Your task to perform on an android device: change the upload size in google photos Image 0: 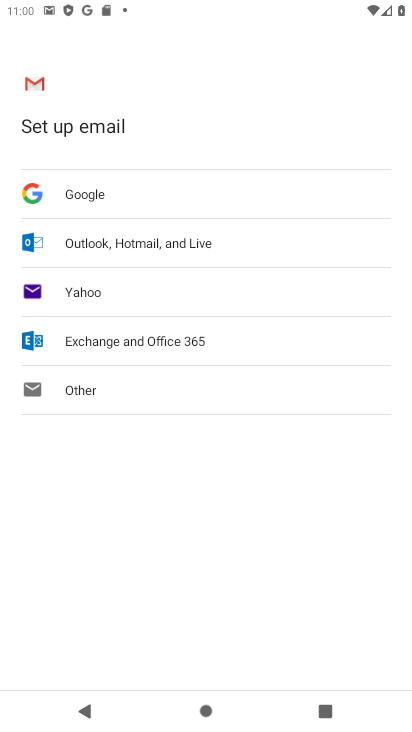
Step 0: drag from (195, 633) to (223, 327)
Your task to perform on an android device: change the upload size in google photos Image 1: 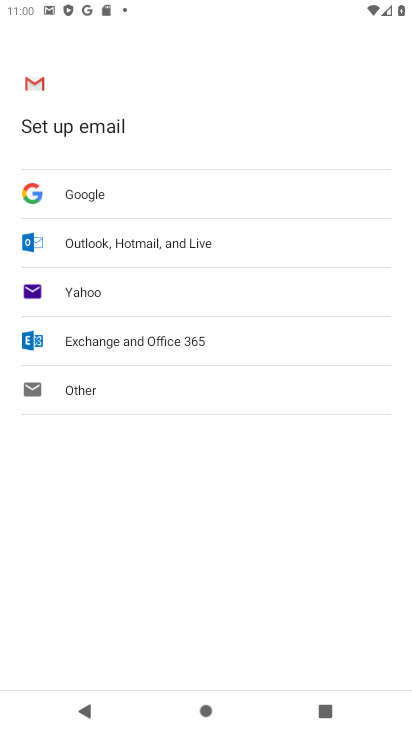
Step 1: press home button
Your task to perform on an android device: change the upload size in google photos Image 2: 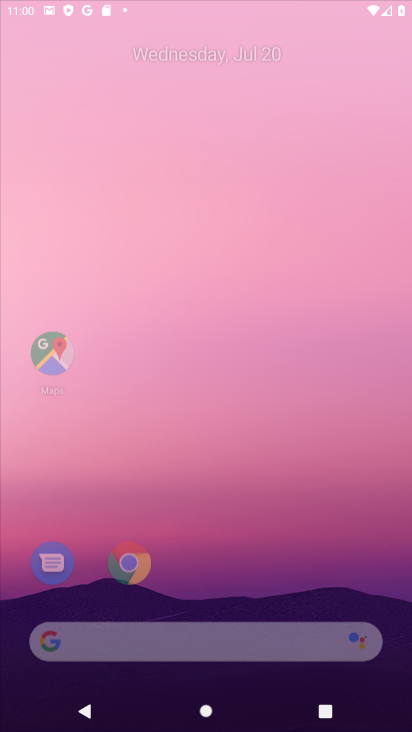
Step 2: drag from (173, 634) to (232, 106)
Your task to perform on an android device: change the upload size in google photos Image 3: 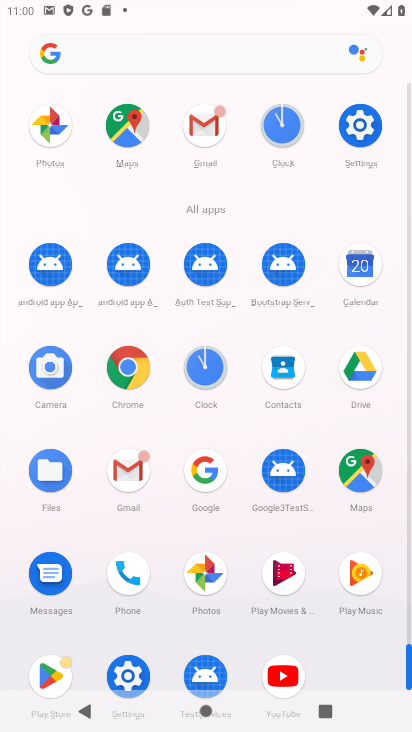
Step 3: click (216, 564)
Your task to perform on an android device: change the upload size in google photos Image 4: 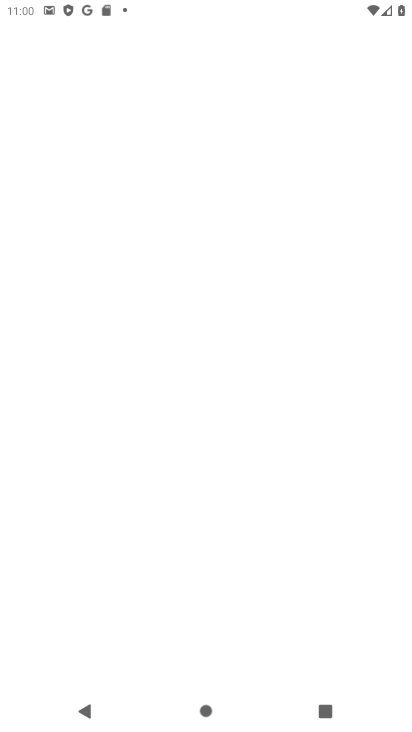
Step 4: drag from (293, 625) to (249, 211)
Your task to perform on an android device: change the upload size in google photos Image 5: 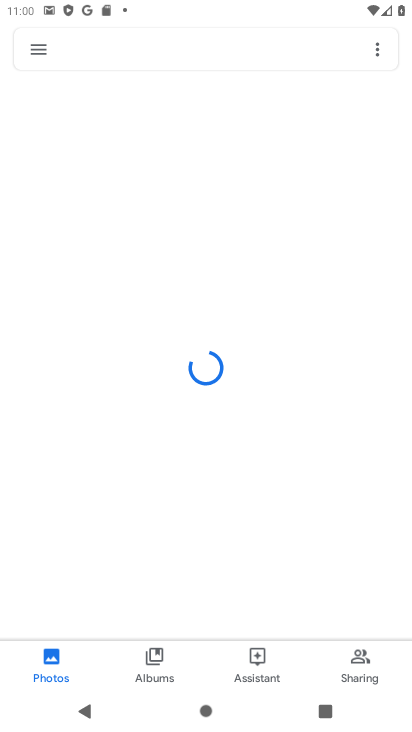
Step 5: drag from (198, 552) to (231, 215)
Your task to perform on an android device: change the upload size in google photos Image 6: 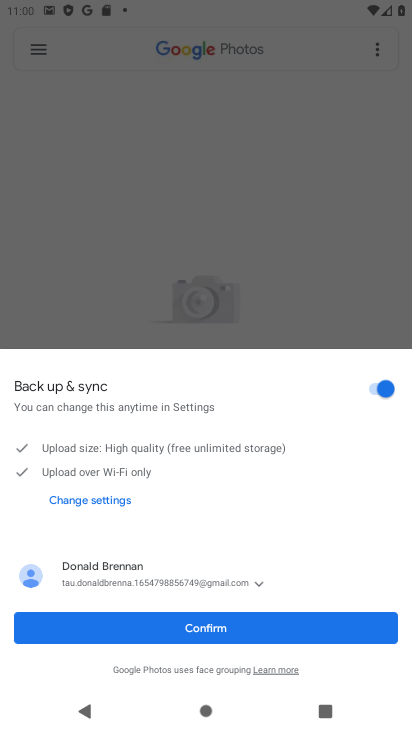
Step 6: press home button
Your task to perform on an android device: change the upload size in google photos Image 7: 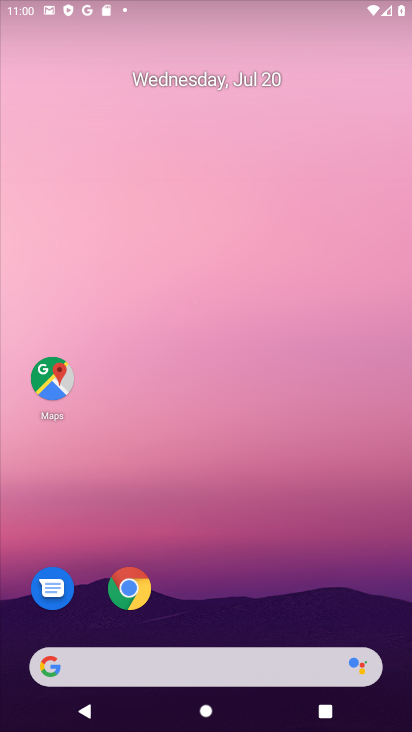
Step 7: drag from (216, 579) to (212, 130)
Your task to perform on an android device: change the upload size in google photos Image 8: 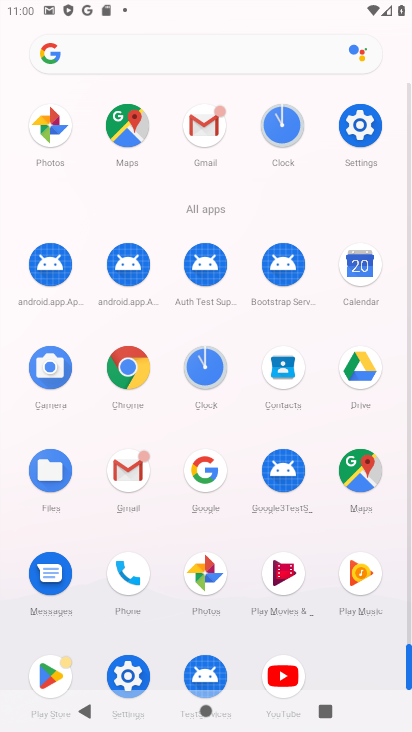
Step 8: click (198, 571)
Your task to perform on an android device: change the upload size in google photos Image 9: 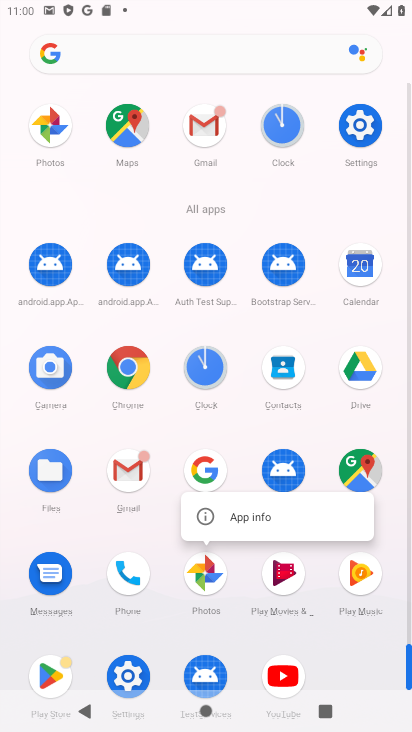
Step 9: click (252, 515)
Your task to perform on an android device: change the upload size in google photos Image 10: 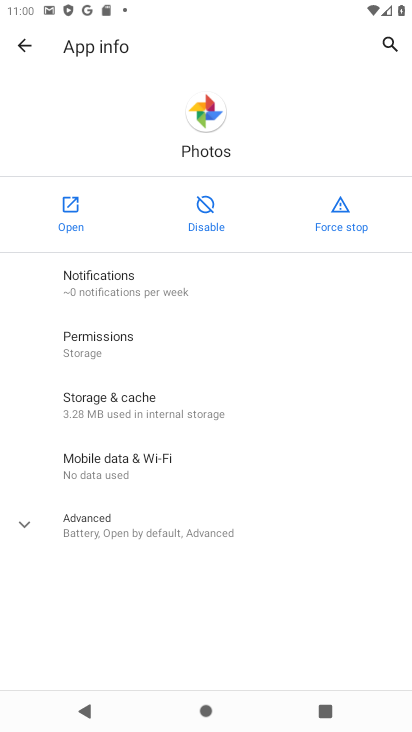
Step 10: click (62, 226)
Your task to perform on an android device: change the upload size in google photos Image 11: 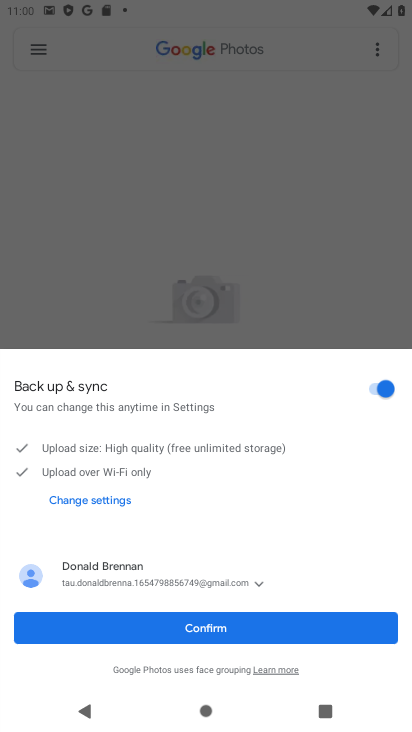
Step 11: drag from (237, 552) to (271, 283)
Your task to perform on an android device: change the upload size in google photos Image 12: 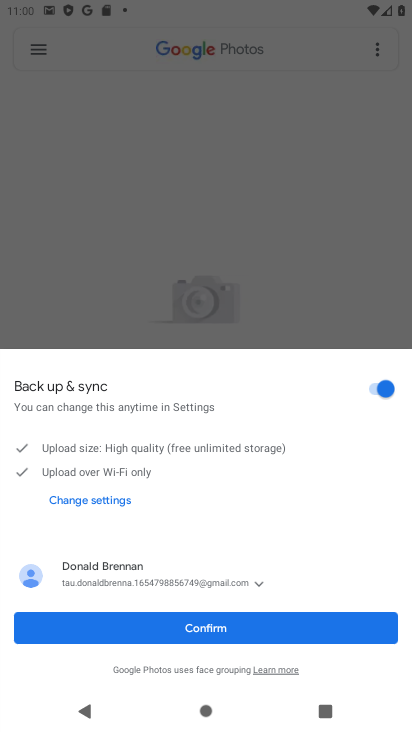
Step 12: click (256, 584)
Your task to perform on an android device: change the upload size in google photos Image 13: 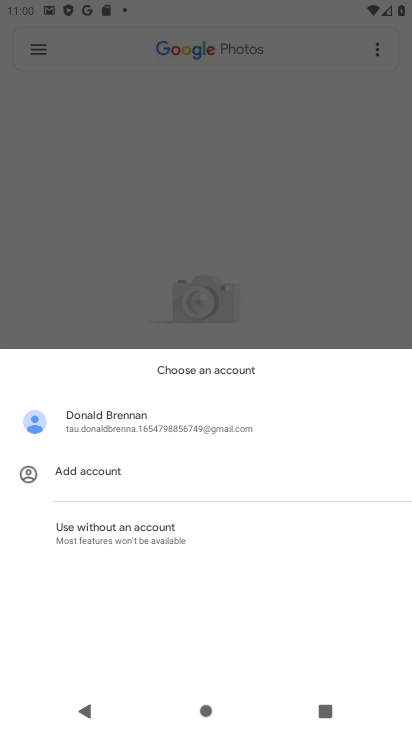
Step 13: click (218, 336)
Your task to perform on an android device: change the upload size in google photos Image 14: 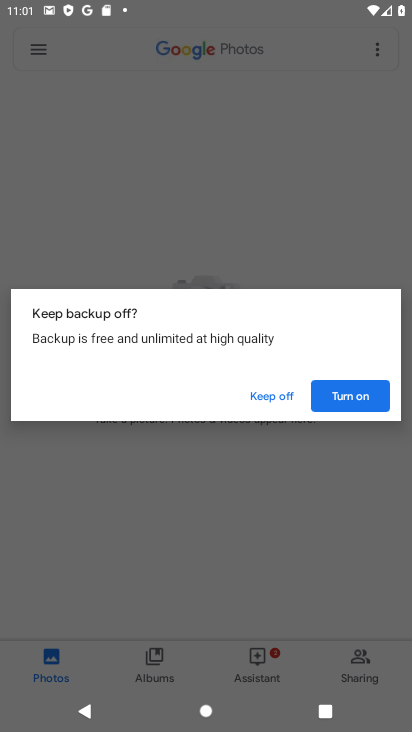
Step 14: click (351, 404)
Your task to perform on an android device: change the upload size in google photos Image 15: 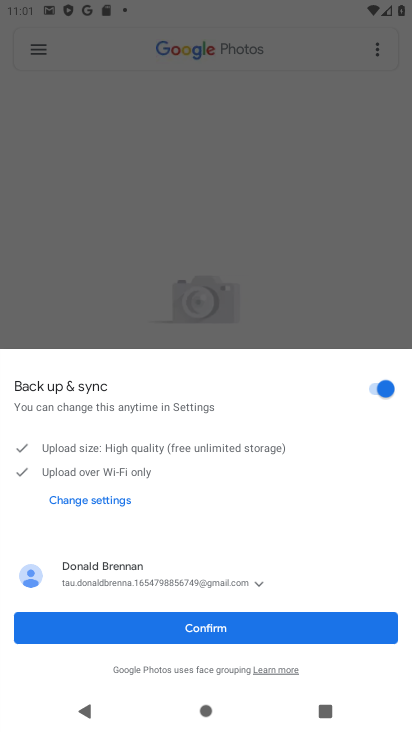
Step 15: drag from (214, 569) to (277, 149)
Your task to perform on an android device: change the upload size in google photos Image 16: 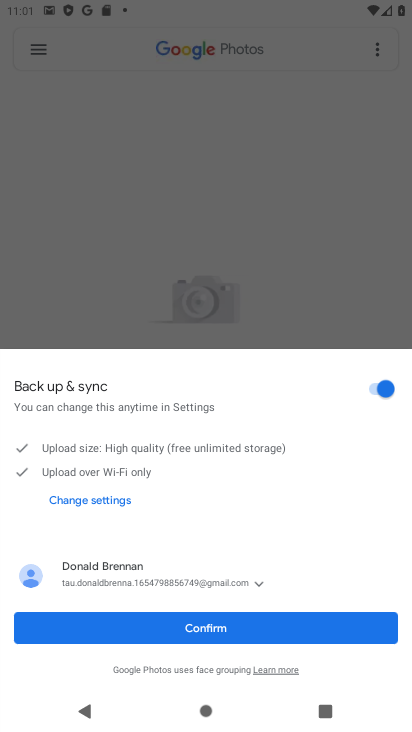
Step 16: click (162, 210)
Your task to perform on an android device: change the upload size in google photos Image 17: 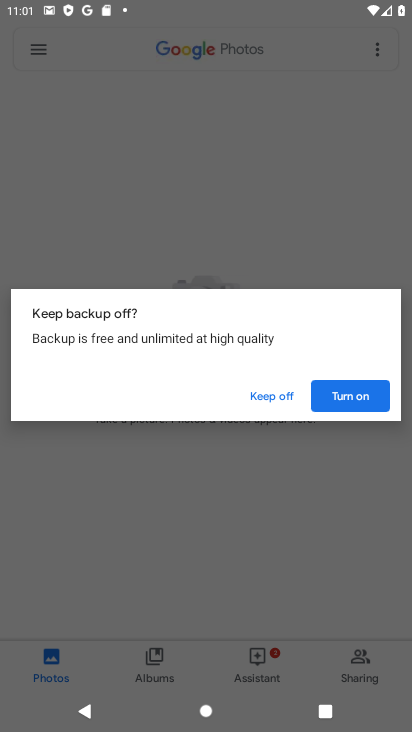
Step 17: click (346, 388)
Your task to perform on an android device: change the upload size in google photos Image 18: 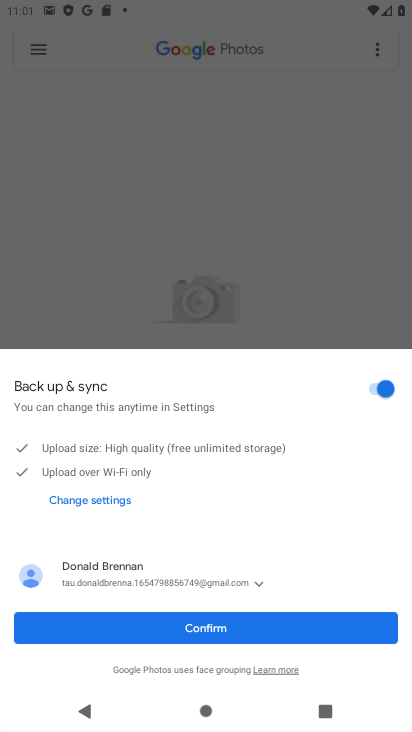
Step 18: click (177, 629)
Your task to perform on an android device: change the upload size in google photos Image 19: 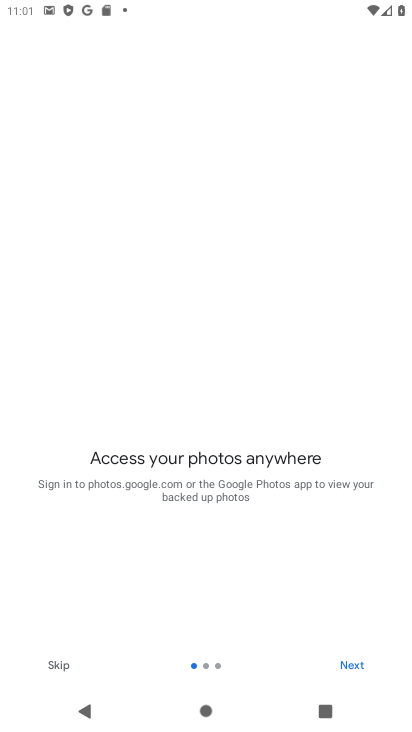
Step 19: click (61, 666)
Your task to perform on an android device: change the upload size in google photos Image 20: 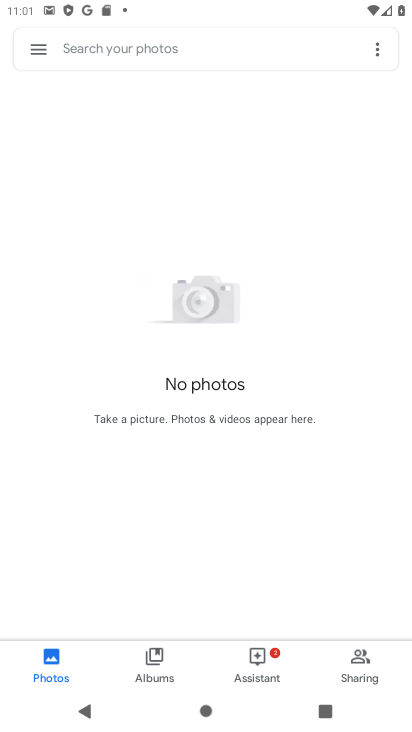
Step 20: click (38, 45)
Your task to perform on an android device: change the upload size in google photos Image 21: 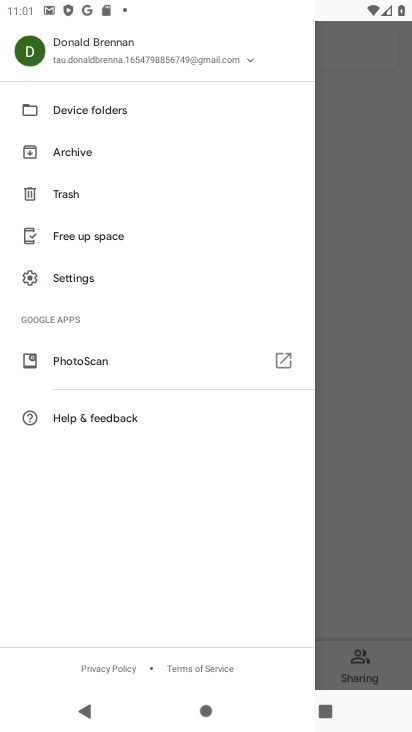
Step 21: click (72, 289)
Your task to perform on an android device: change the upload size in google photos Image 22: 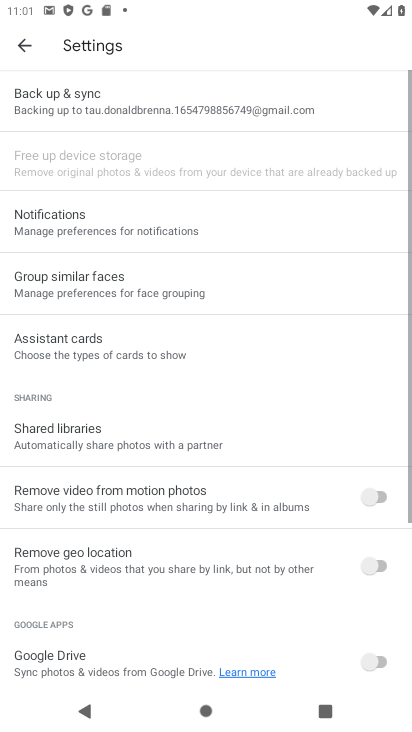
Step 22: drag from (247, 532) to (226, 197)
Your task to perform on an android device: change the upload size in google photos Image 23: 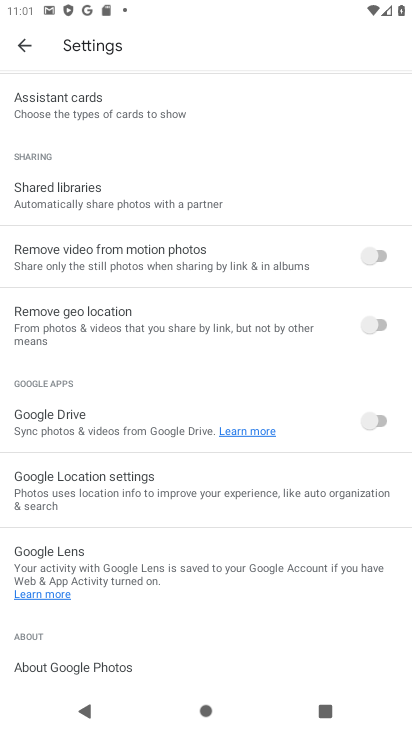
Step 23: drag from (138, 159) to (253, 674)
Your task to perform on an android device: change the upload size in google photos Image 24: 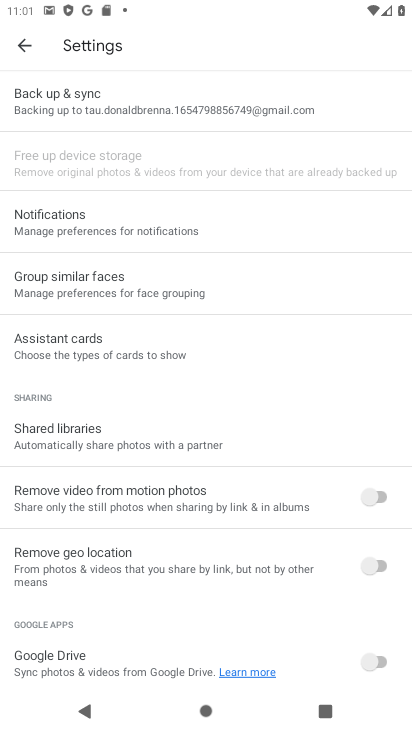
Step 24: click (98, 110)
Your task to perform on an android device: change the upload size in google photos Image 25: 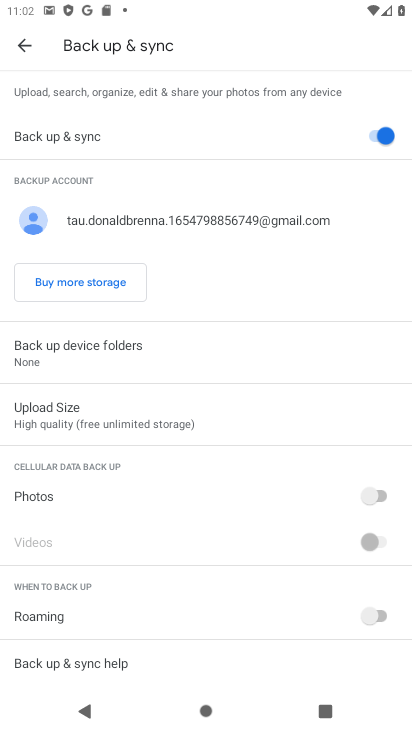
Step 25: click (85, 423)
Your task to perform on an android device: change the upload size in google photos Image 26: 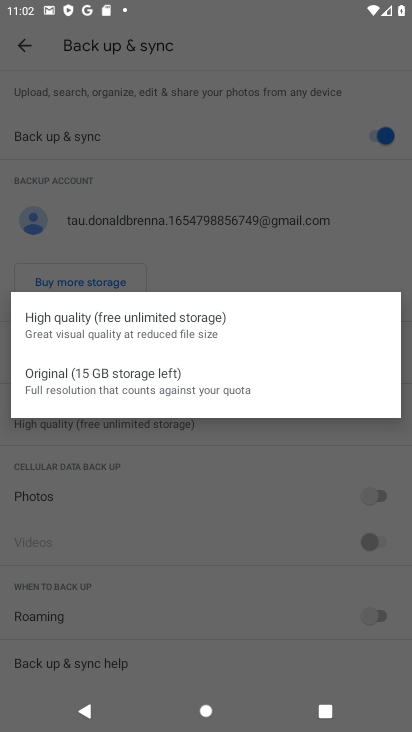
Step 26: drag from (225, 474) to (231, 315)
Your task to perform on an android device: change the upload size in google photos Image 27: 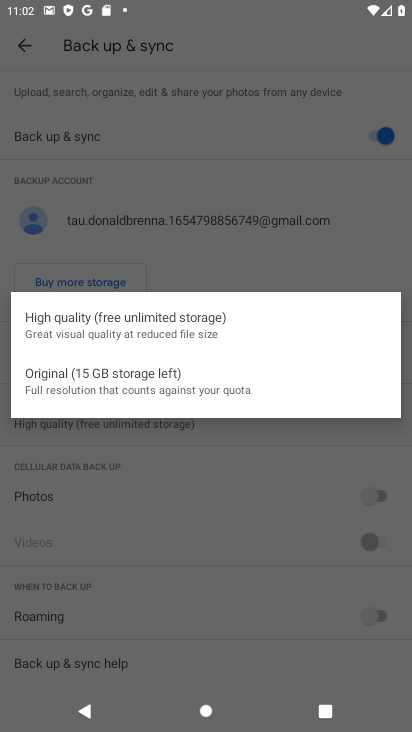
Step 27: click (95, 327)
Your task to perform on an android device: change the upload size in google photos Image 28: 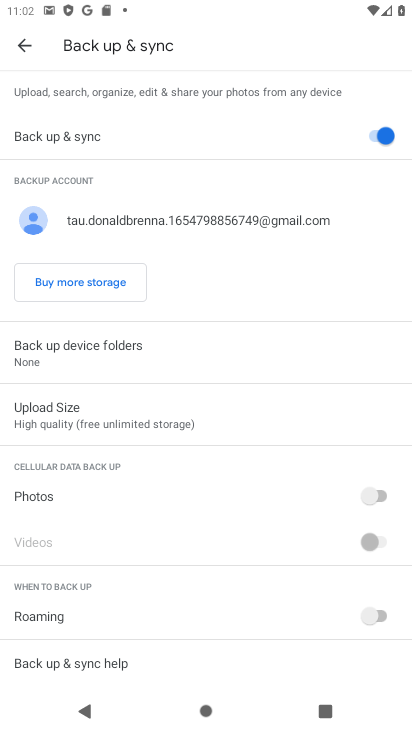
Step 28: task complete